Your task to perform on an android device: install app "Microsoft Outlook" Image 0: 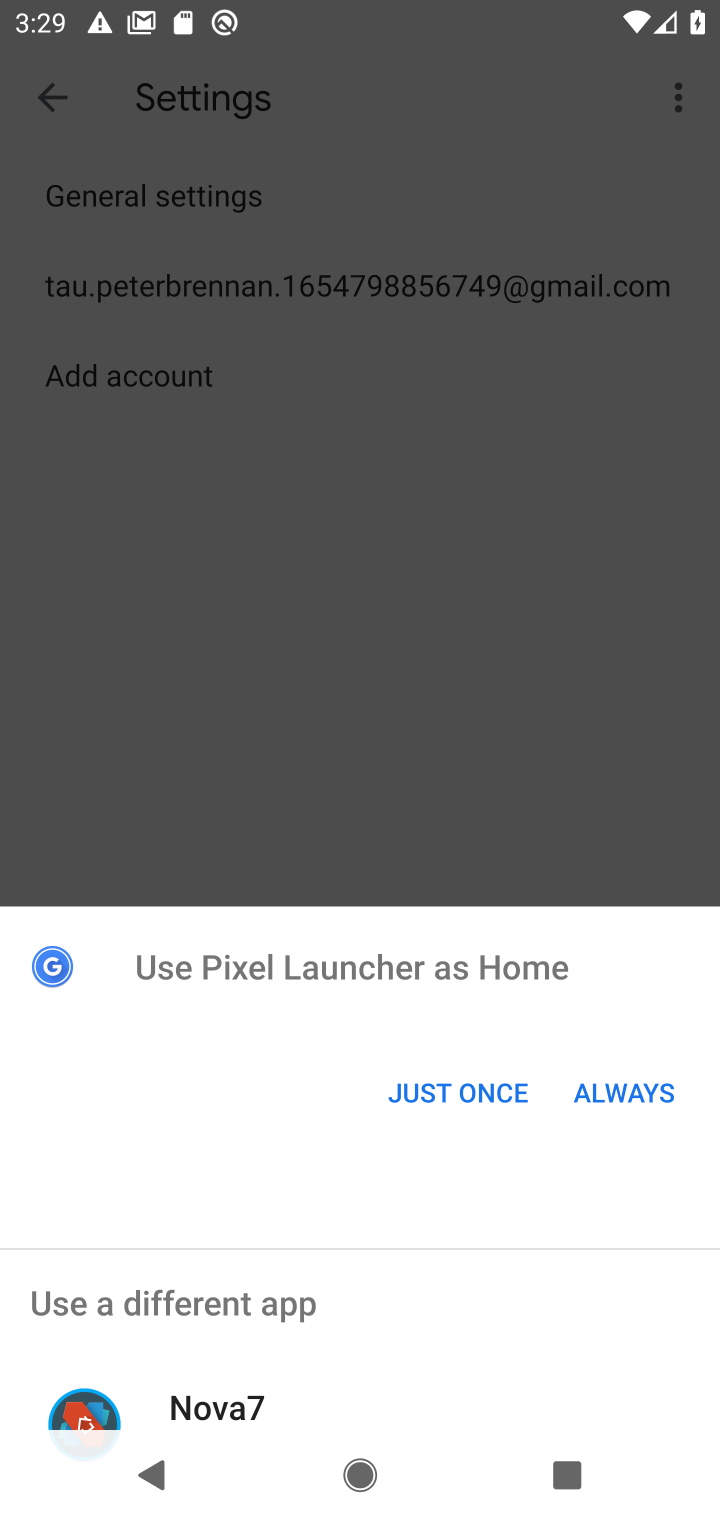
Step 0: press home button
Your task to perform on an android device: install app "Microsoft Outlook" Image 1: 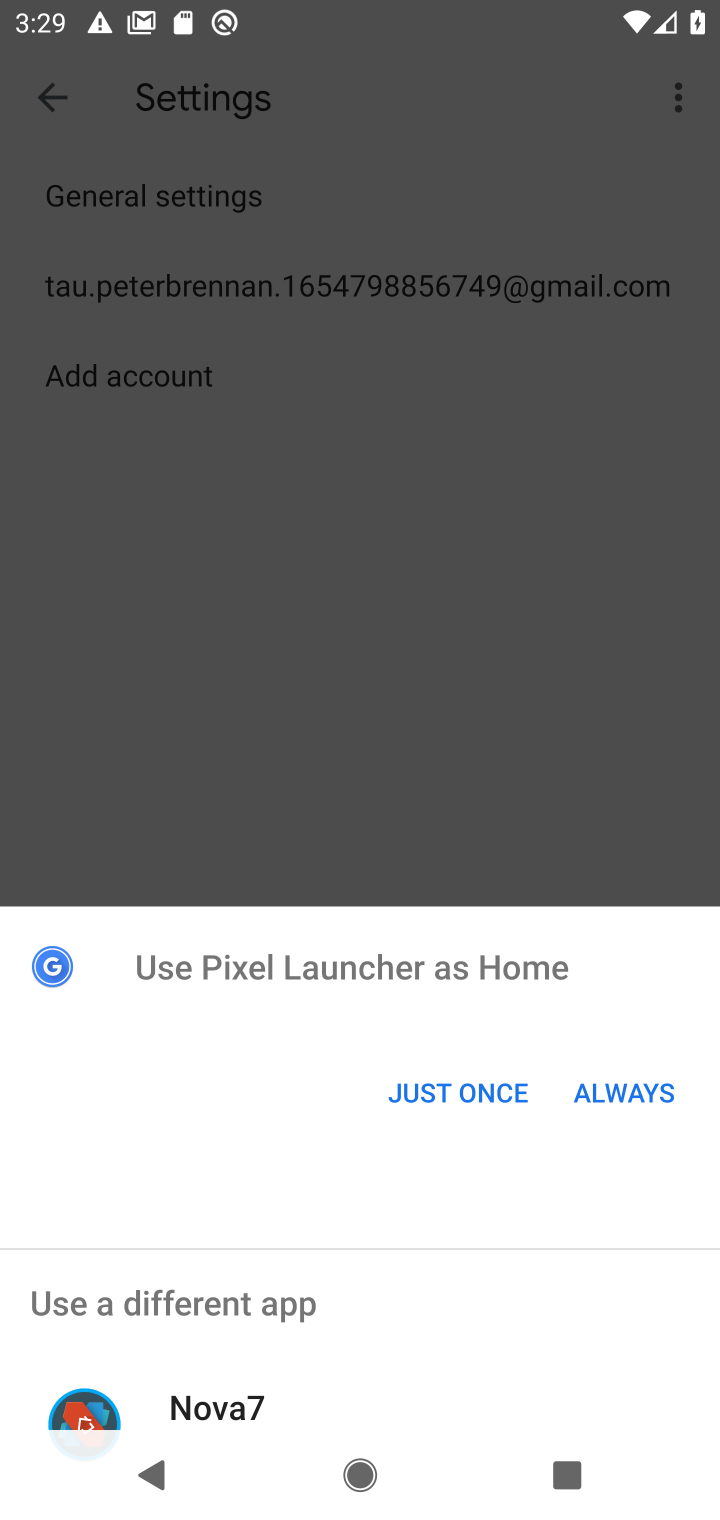
Step 1: click (476, 677)
Your task to perform on an android device: install app "Microsoft Outlook" Image 2: 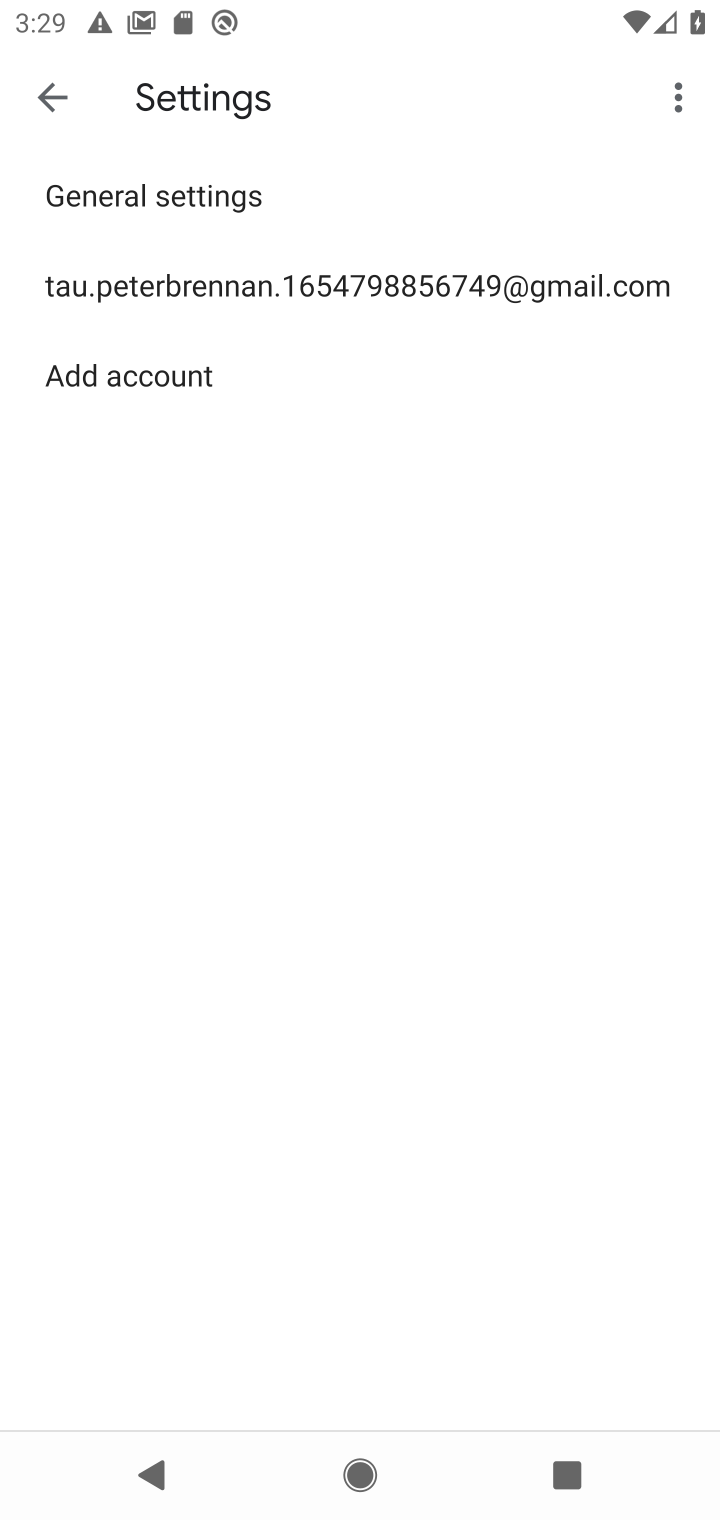
Step 2: press home button
Your task to perform on an android device: install app "Microsoft Outlook" Image 3: 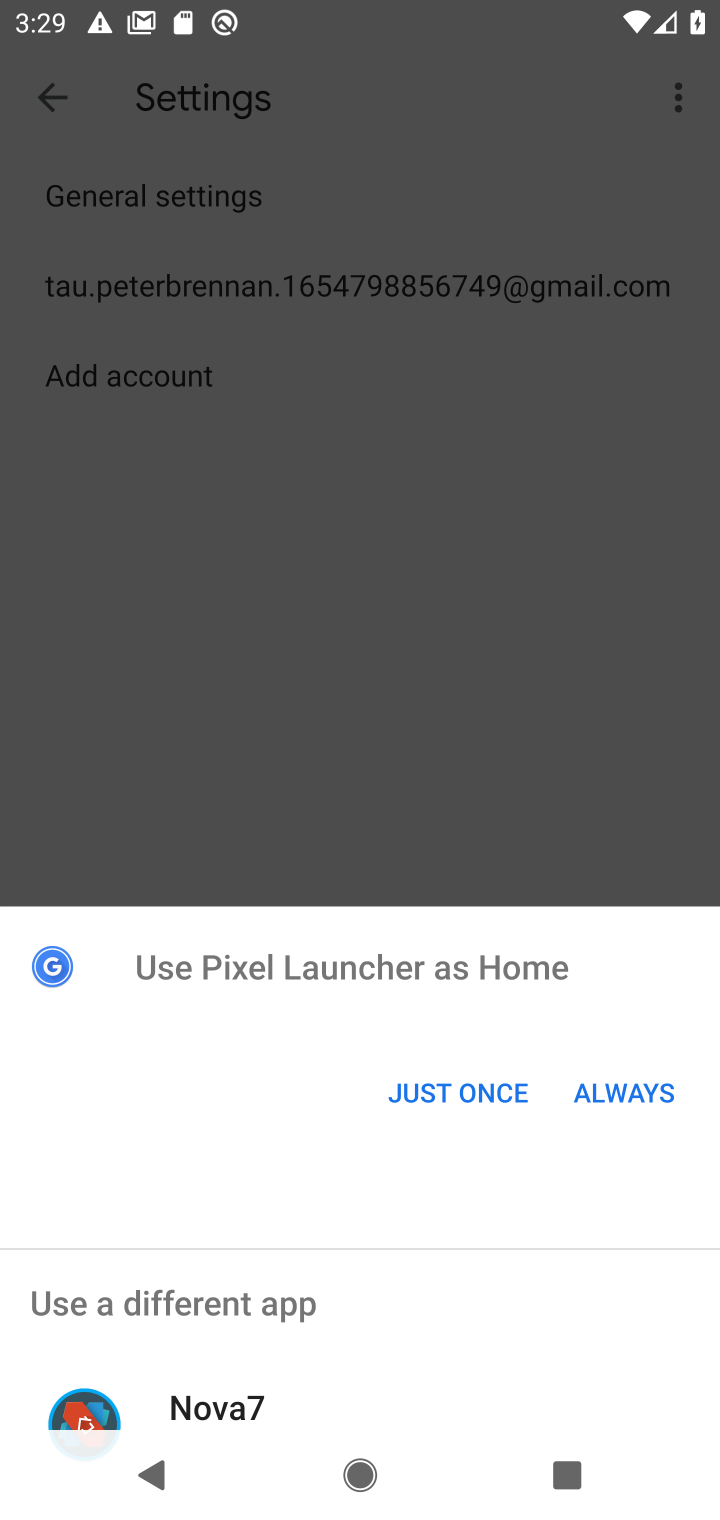
Step 3: click (471, 1066)
Your task to perform on an android device: install app "Microsoft Outlook" Image 4: 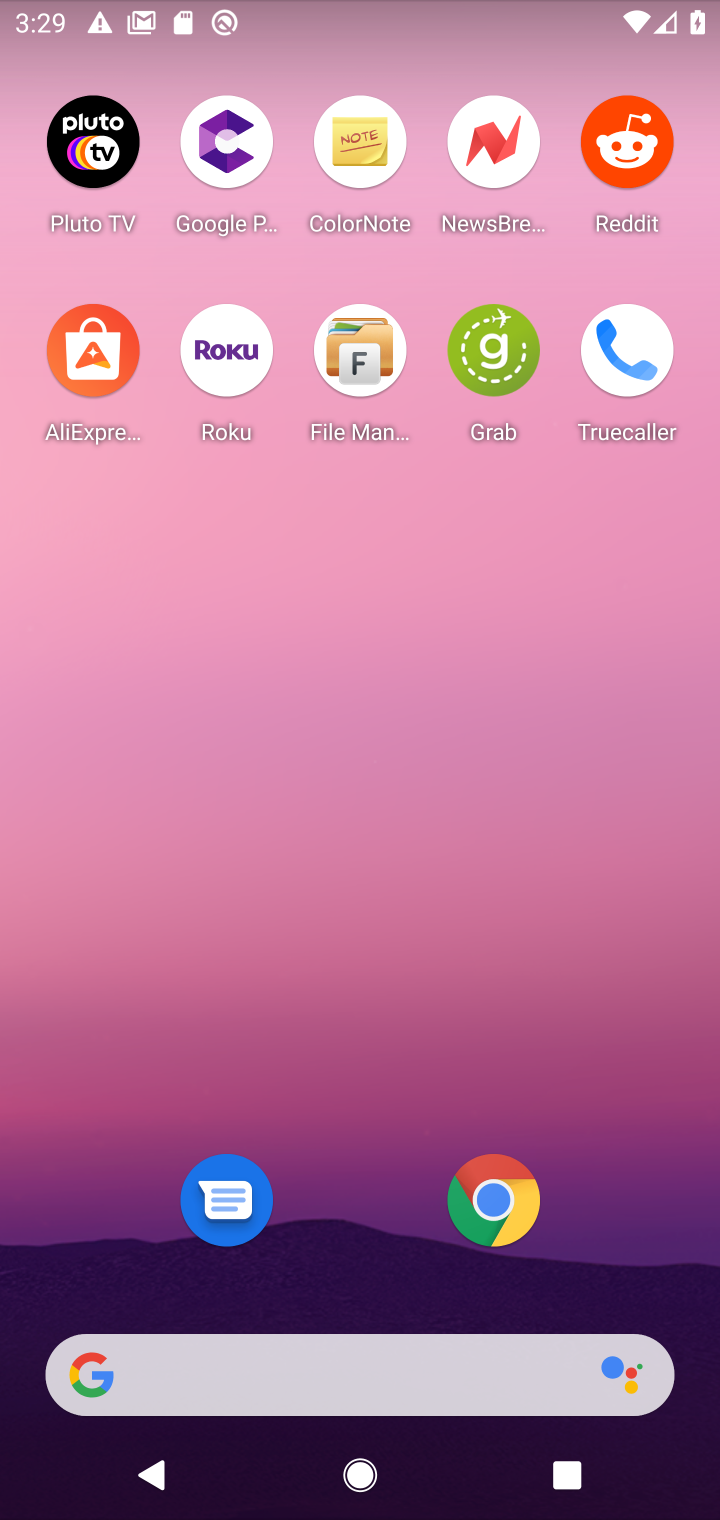
Step 4: drag from (331, 1274) to (318, 33)
Your task to perform on an android device: install app "Microsoft Outlook" Image 5: 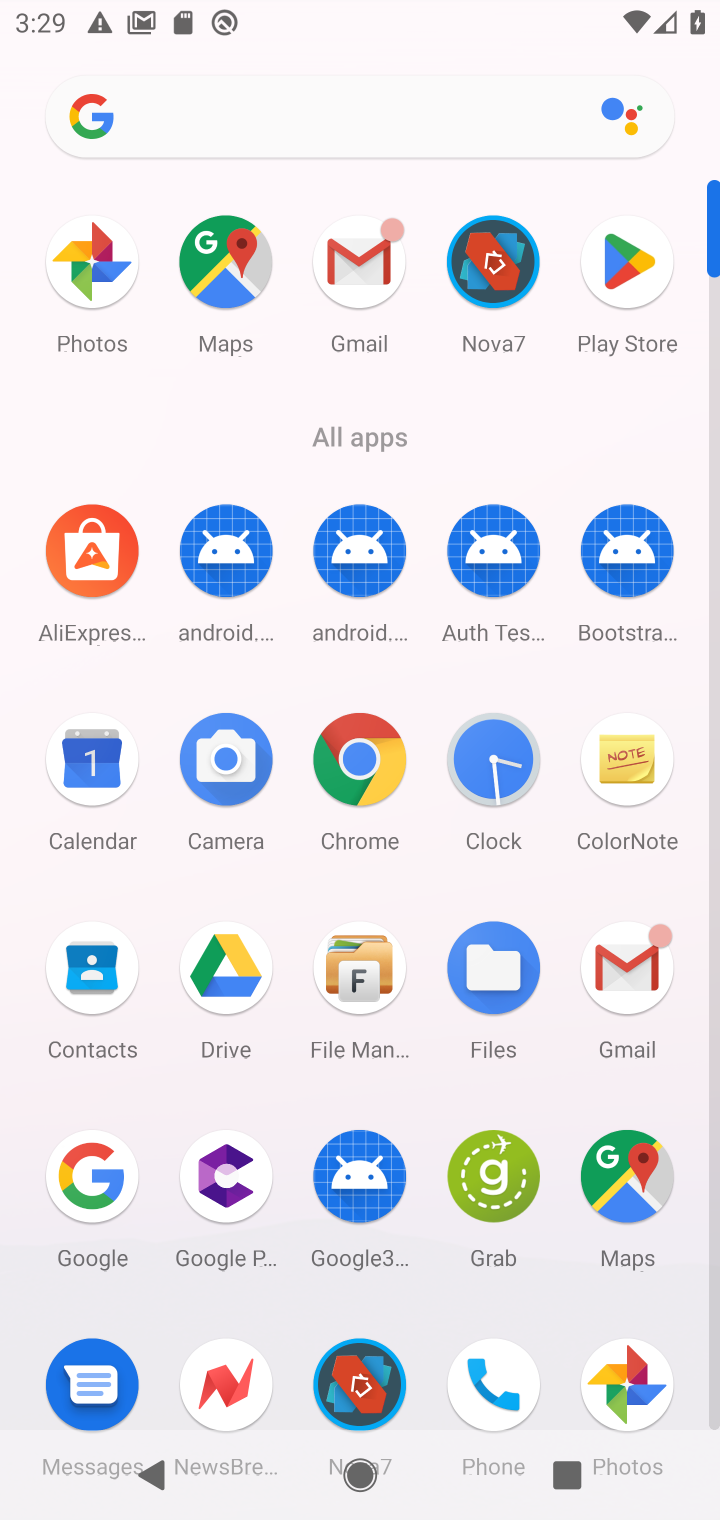
Step 5: click (633, 308)
Your task to perform on an android device: install app "Microsoft Outlook" Image 6: 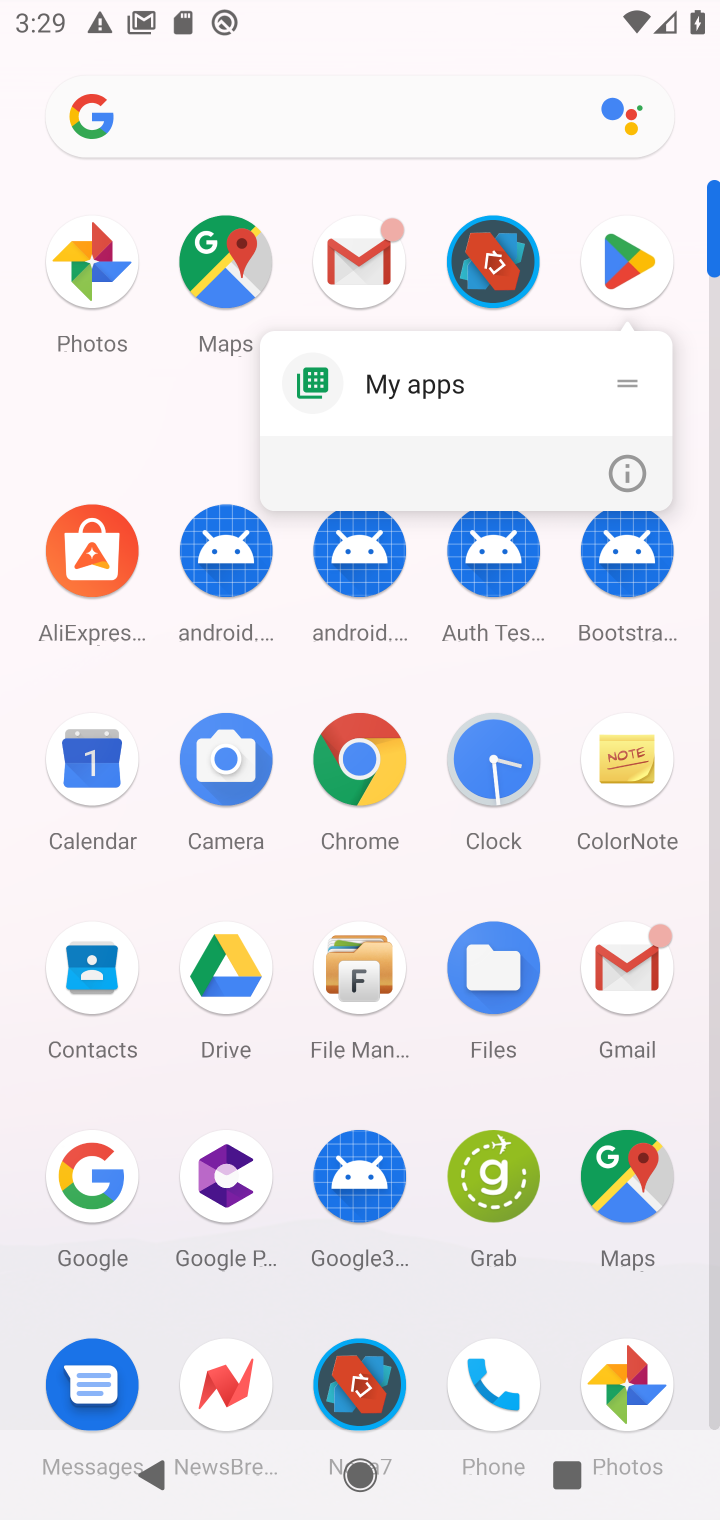
Step 6: click (652, 239)
Your task to perform on an android device: install app "Microsoft Outlook" Image 7: 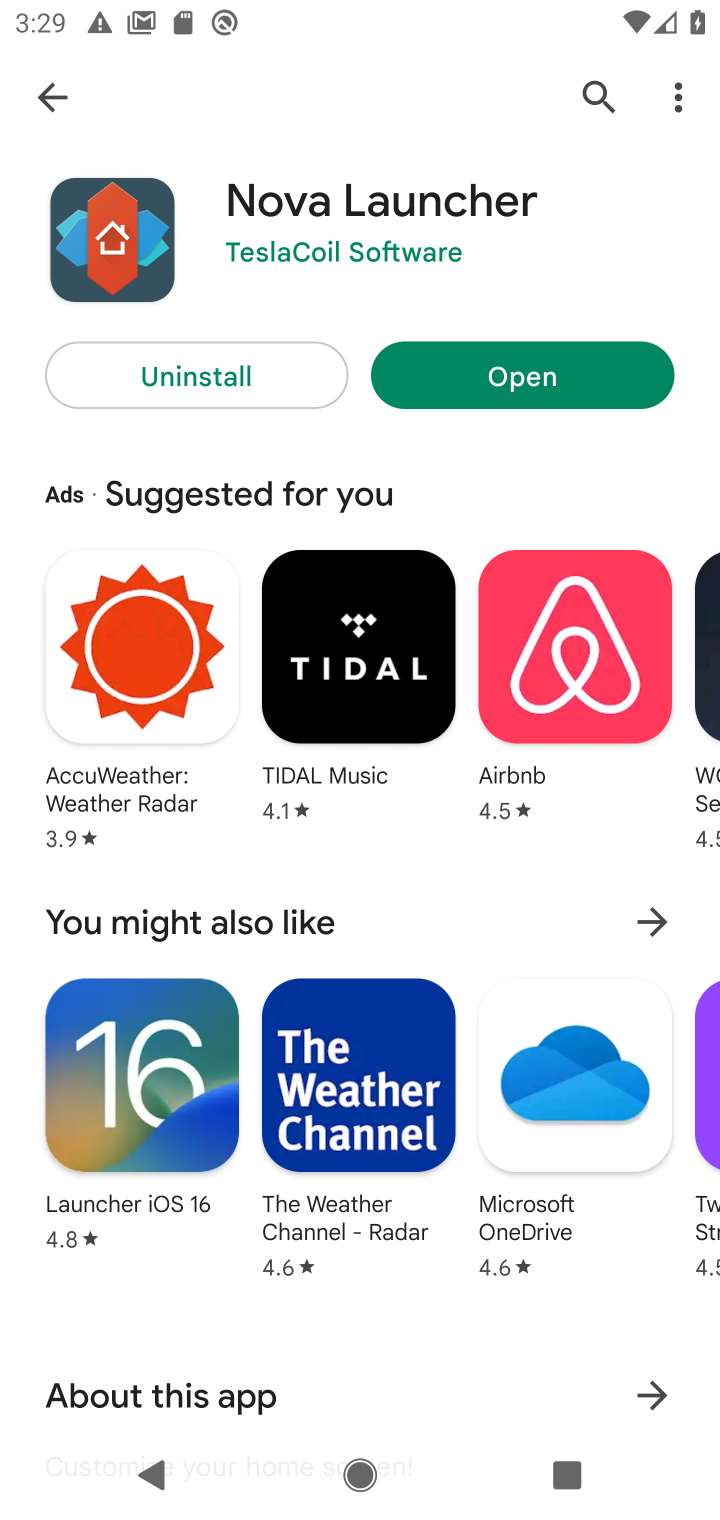
Step 7: click (51, 88)
Your task to perform on an android device: install app "Microsoft Outlook" Image 8: 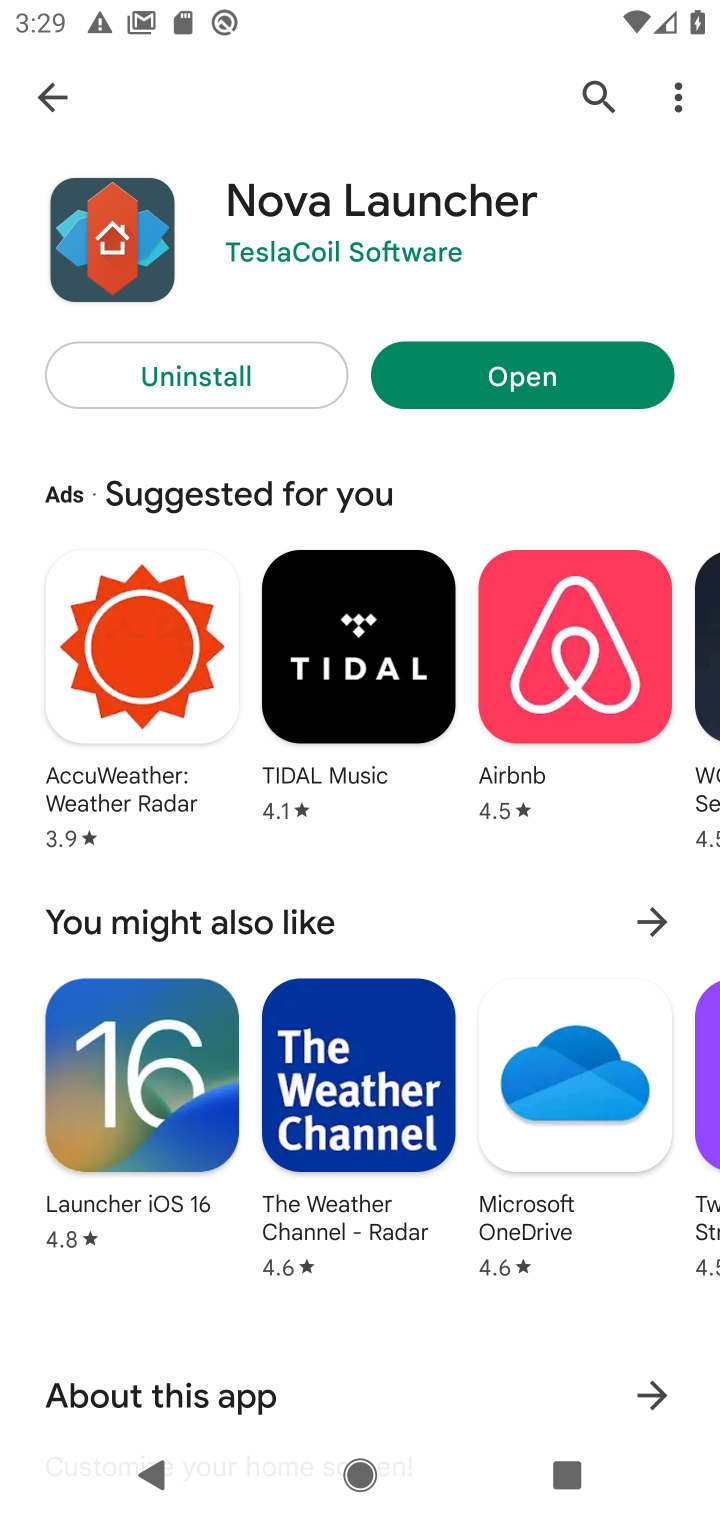
Step 8: click (38, 98)
Your task to perform on an android device: install app "Microsoft Outlook" Image 9: 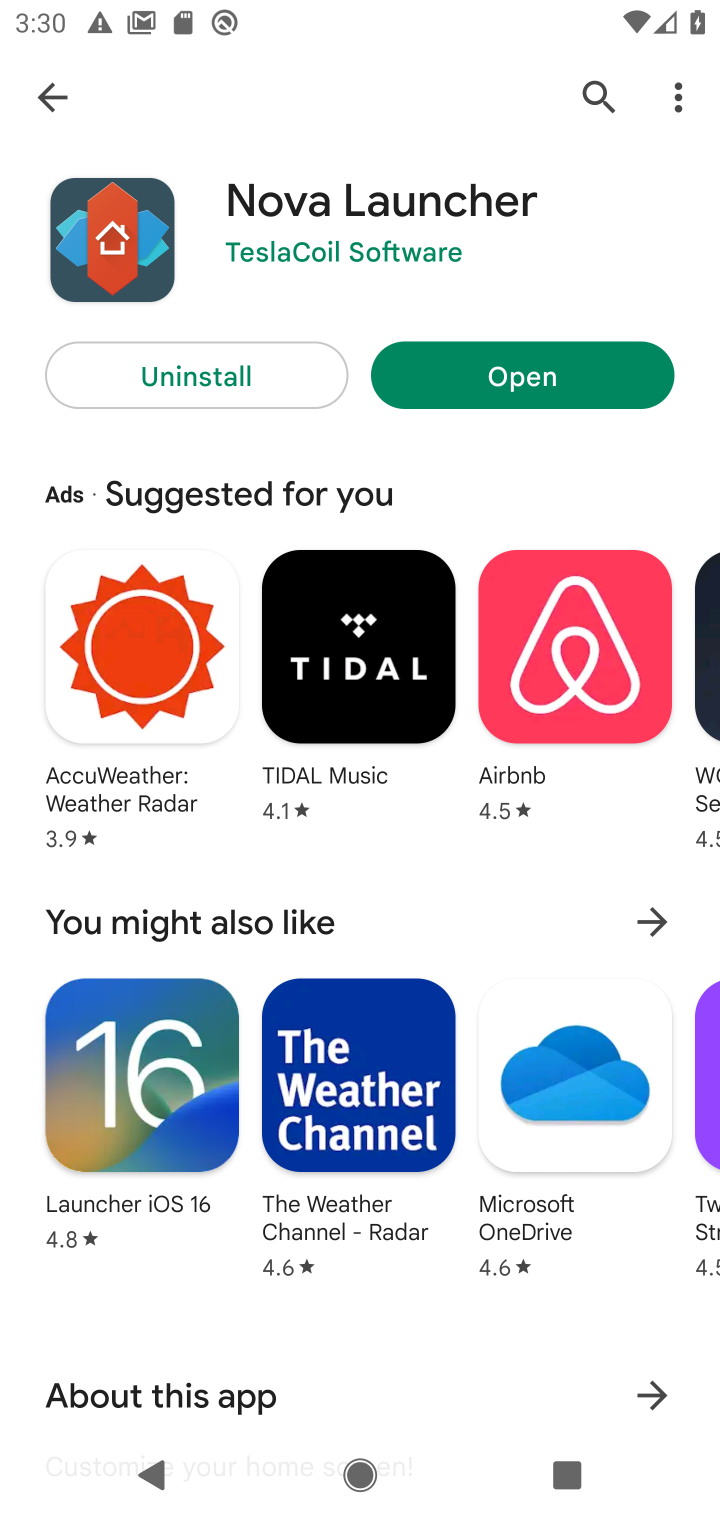
Step 9: click (45, 90)
Your task to perform on an android device: install app "Microsoft Outlook" Image 10: 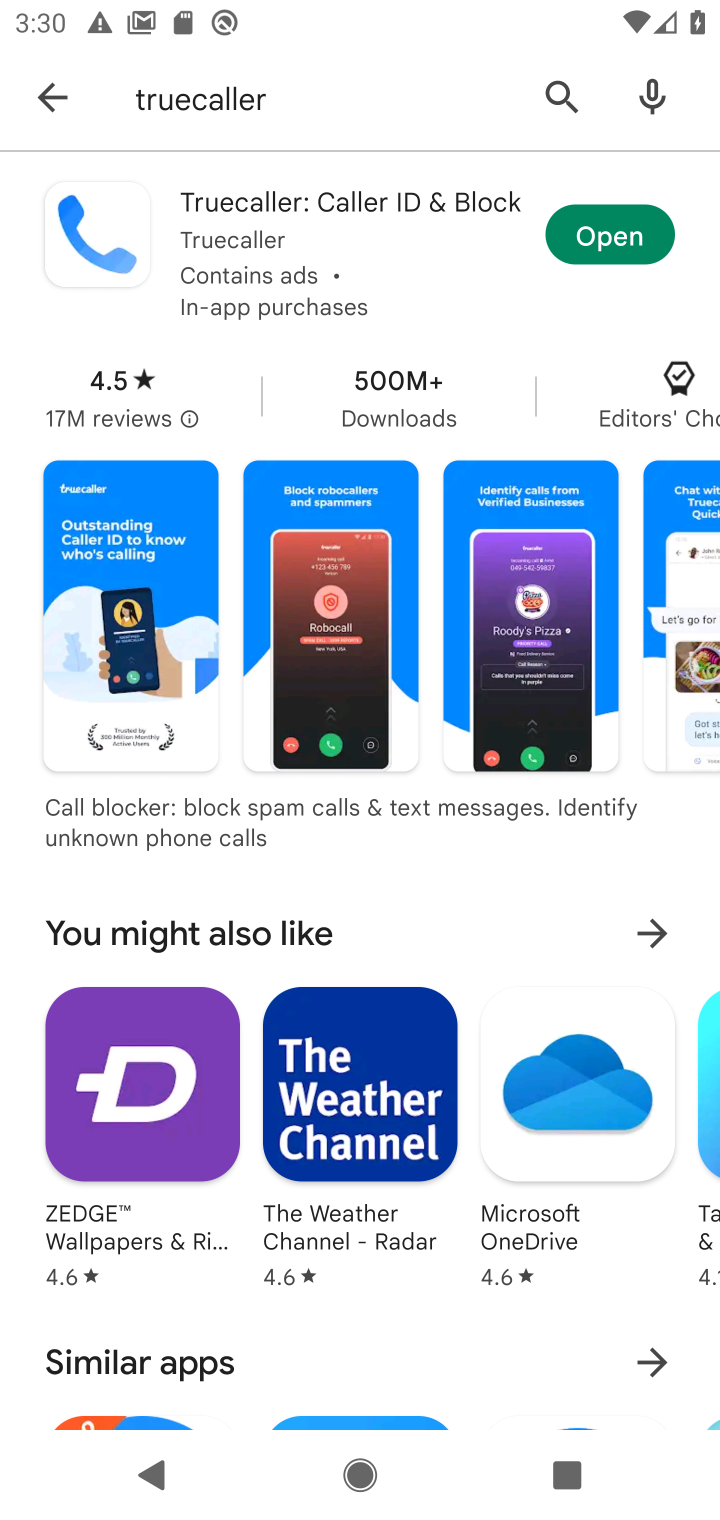
Step 10: click (266, 114)
Your task to perform on an android device: install app "Microsoft Outlook" Image 11: 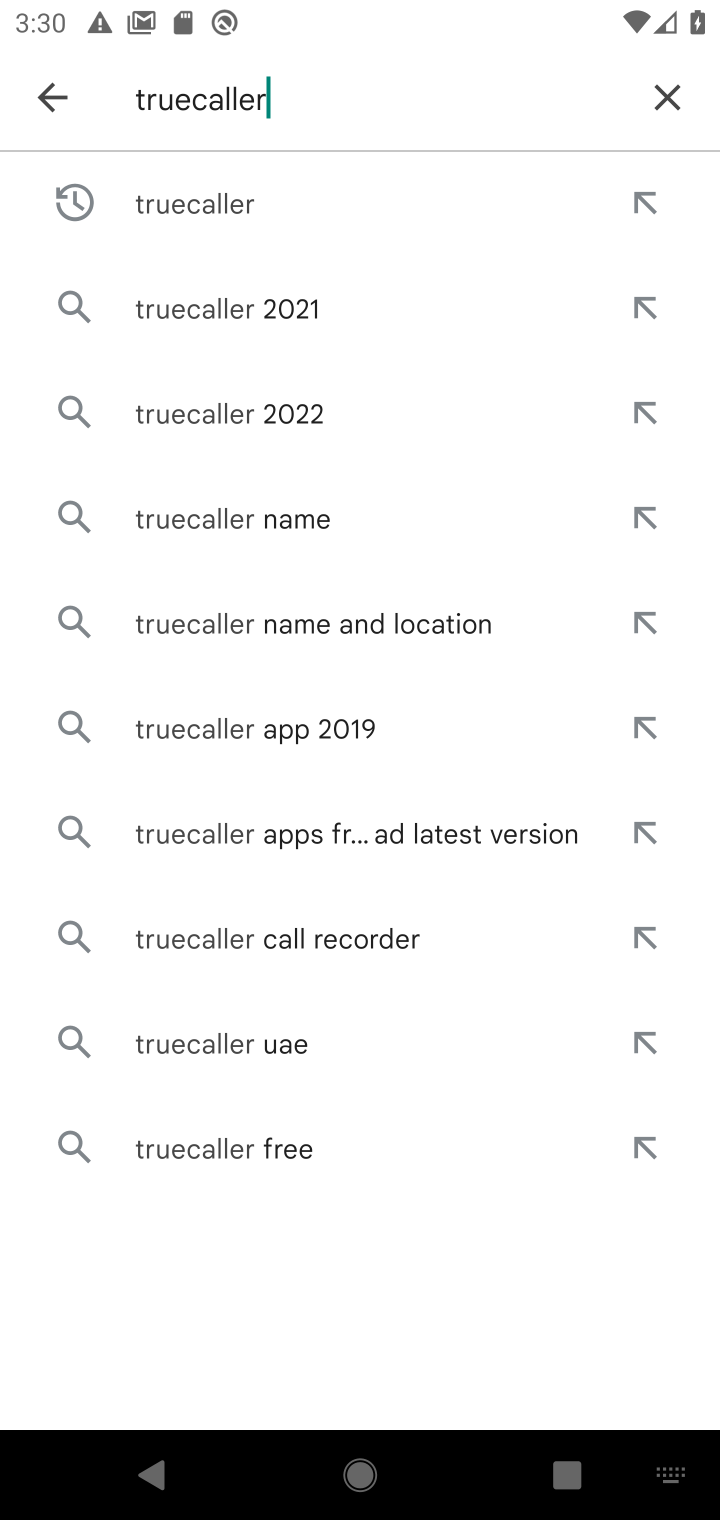
Step 11: click (658, 93)
Your task to perform on an android device: install app "Microsoft Outlook" Image 12: 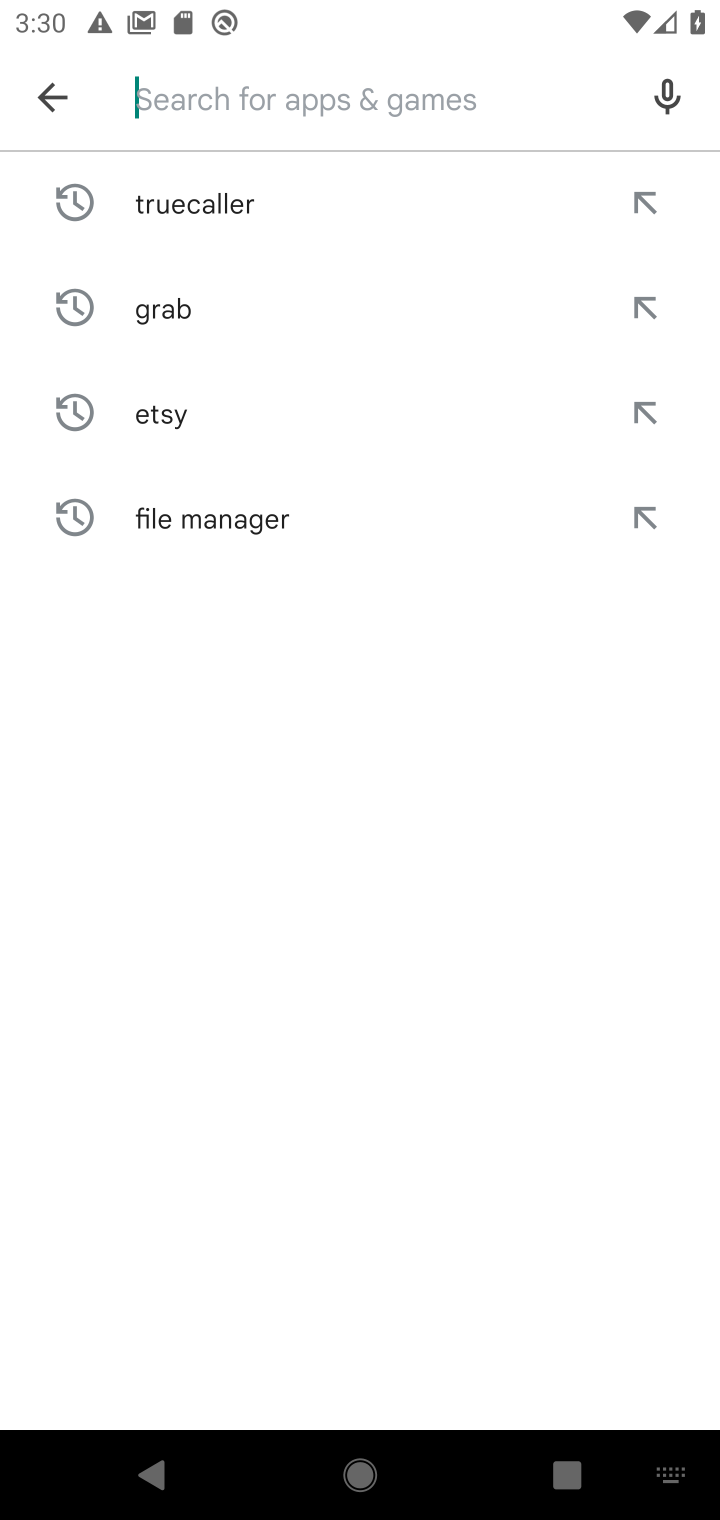
Step 12: type "microsoft outlook"
Your task to perform on an android device: install app "Microsoft Outlook" Image 13: 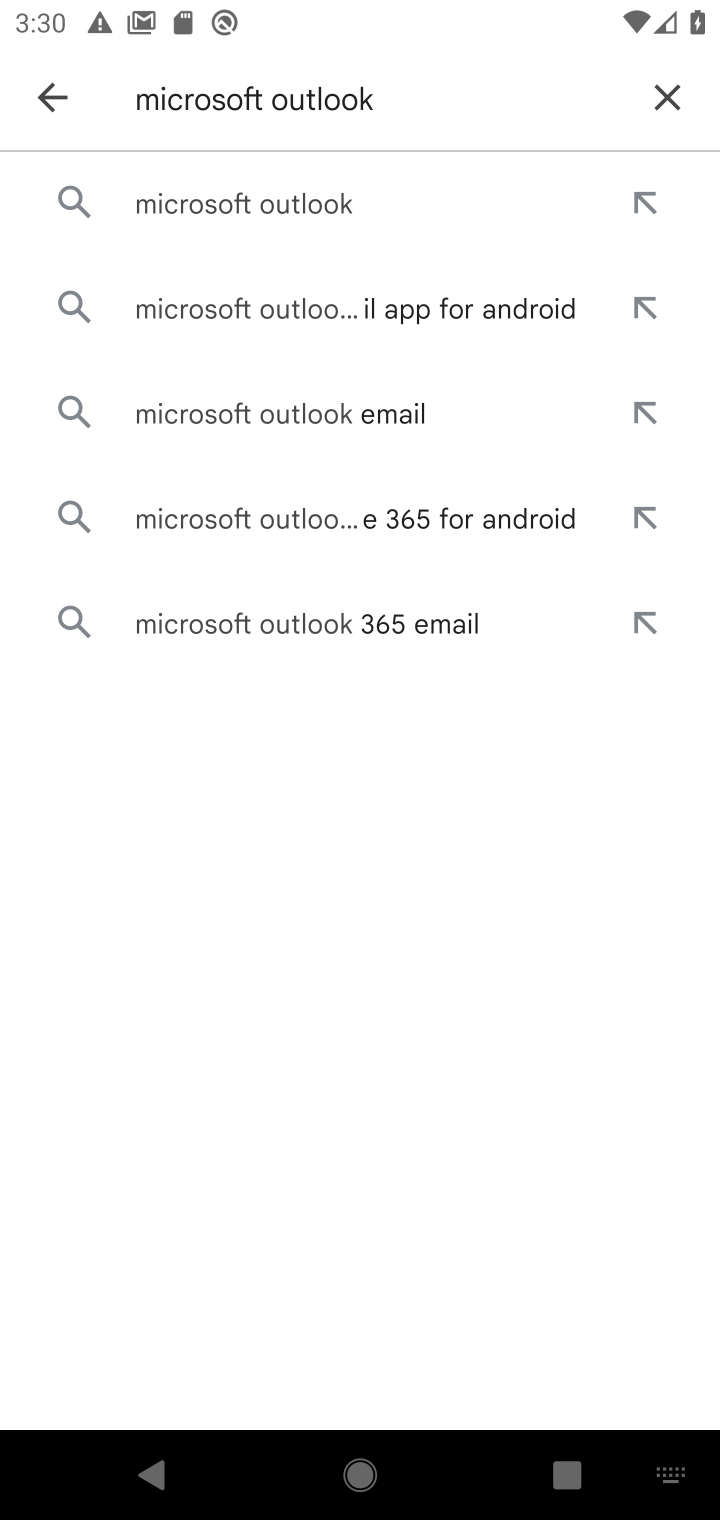
Step 13: click (237, 196)
Your task to perform on an android device: install app "Microsoft Outlook" Image 14: 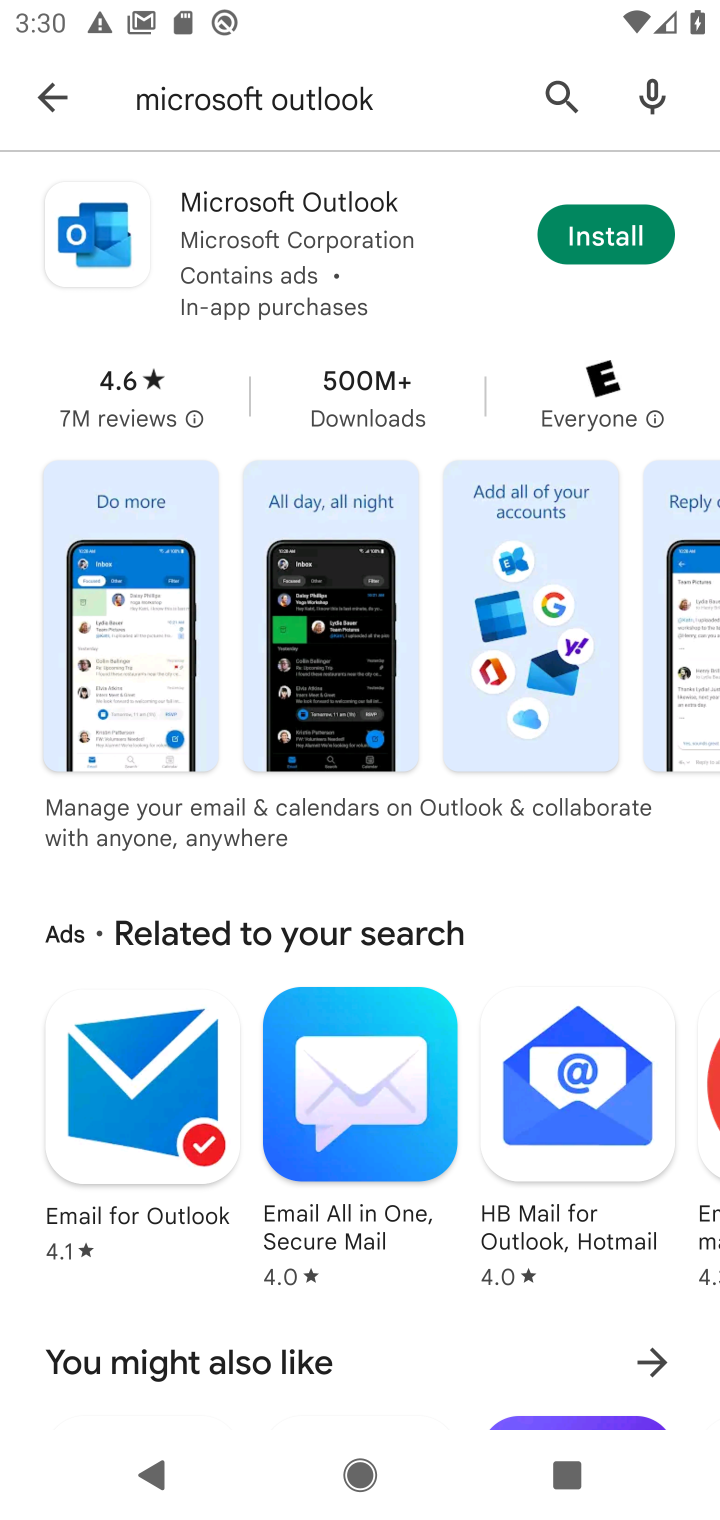
Step 14: click (609, 230)
Your task to perform on an android device: install app "Microsoft Outlook" Image 15: 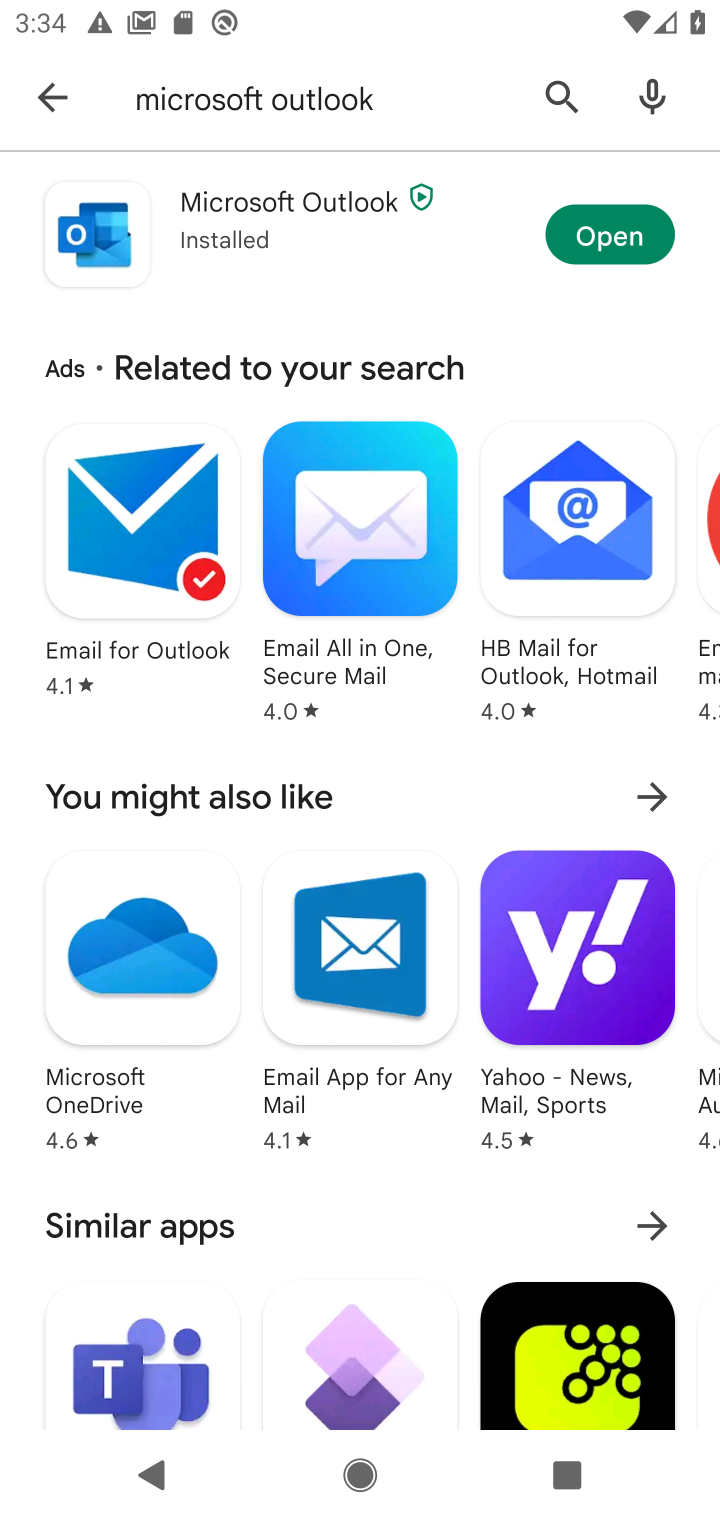
Step 15: task complete